Your task to perform on an android device: read, delete, or share a saved page in the chrome app Image 0: 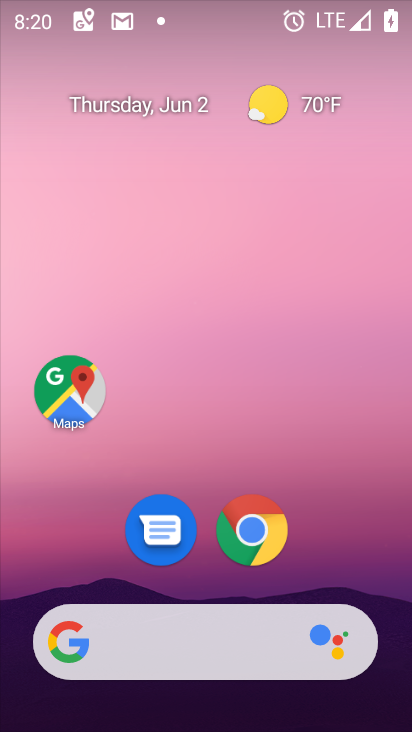
Step 0: click (250, 530)
Your task to perform on an android device: read, delete, or share a saved page in the chrome app Image 1: 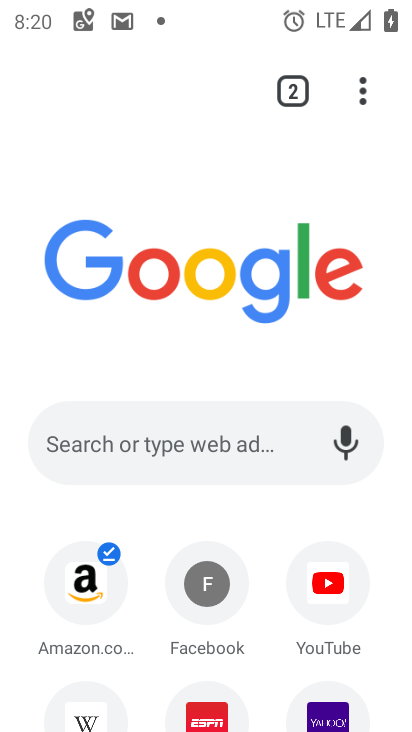
Step 1: click (366, 95)
Your task to perform on an android device: read, delete, or share a saved page in the chrome app Image 2: 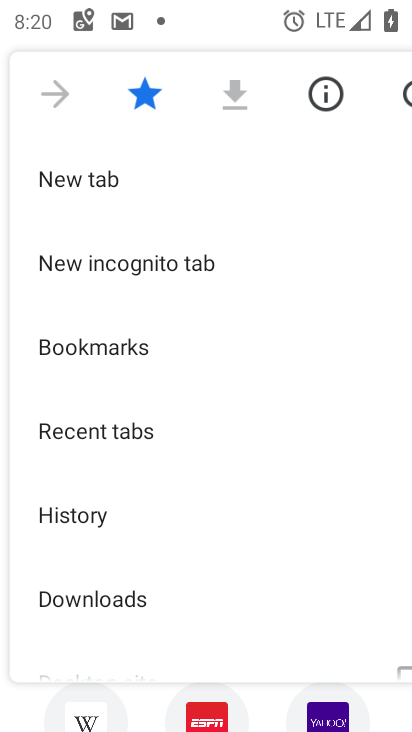
Step 2: click (80, 592)
Your task to perform on an android device: read, delete, or share a saved page in the chrome app Image 3: 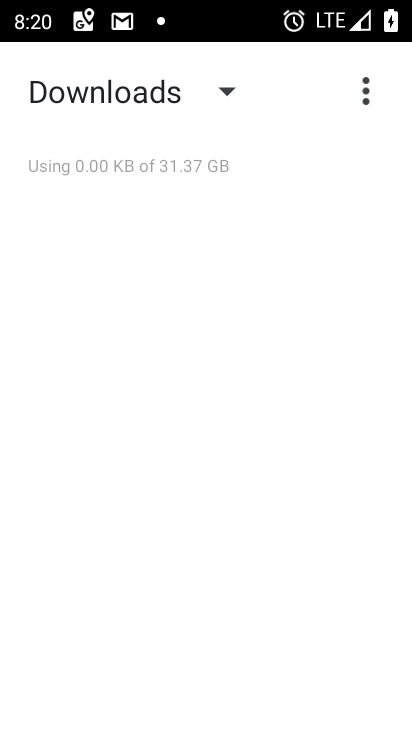
Step 3: click (226, 94)
Your task to perform on an android device: read, delete, or share a saved page in the chrome app Image 4: 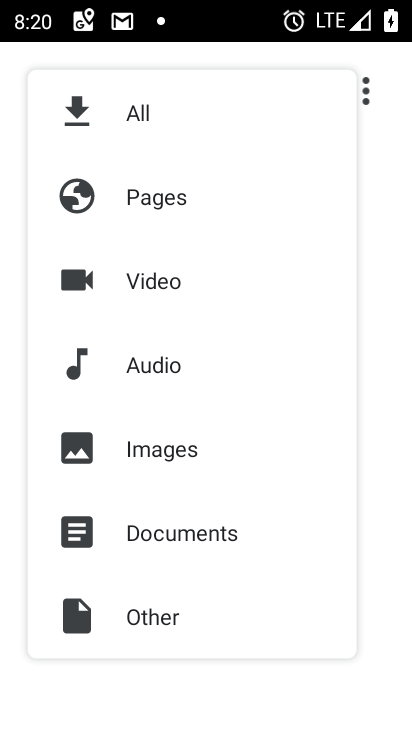
Step 4: click (147, 196)
Your task to perform on an android device: read, delete, or share a saved page in the chrome app Image 5: 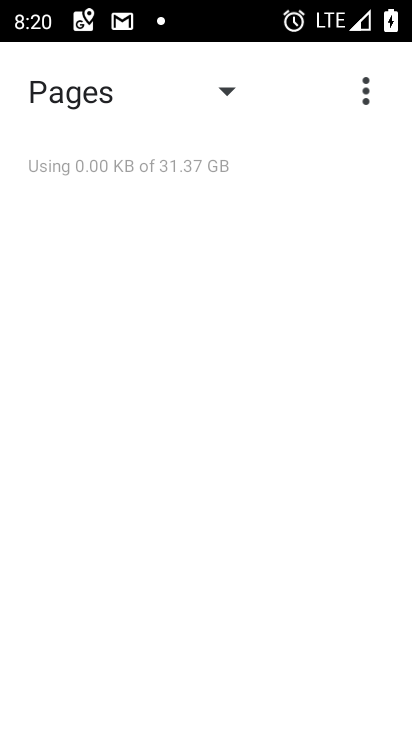
Step 5: task complete